Your task to perform on an android device: Open Google Chrome Image 0: 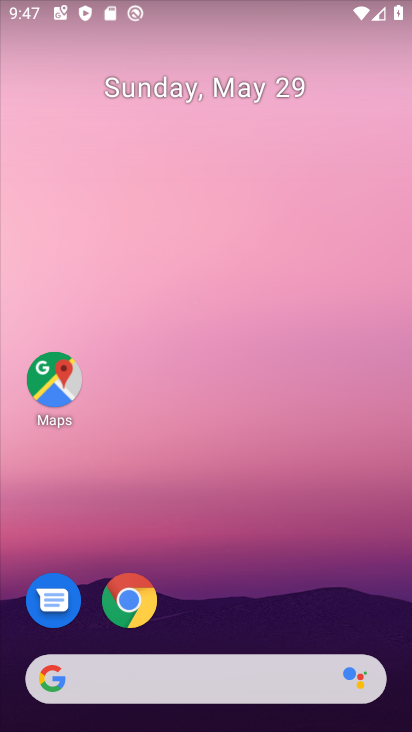
Step 0: click (122, 604)
Your task to perform on an android device: Open Google Chrome Image 1: 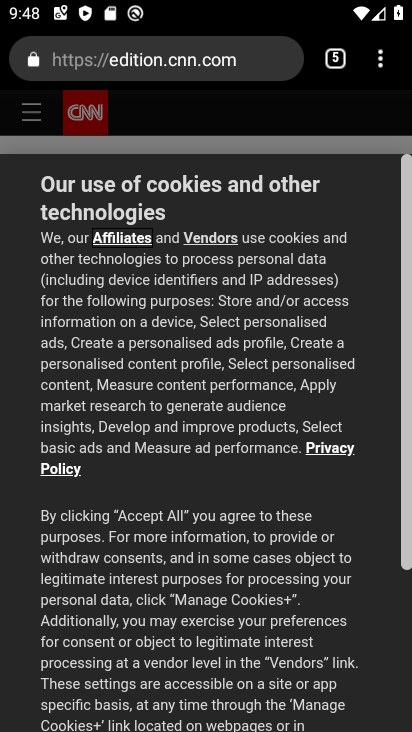
Step 1: task complete